Your task to perform on an android device: change the clock display to show seconds Image 0: 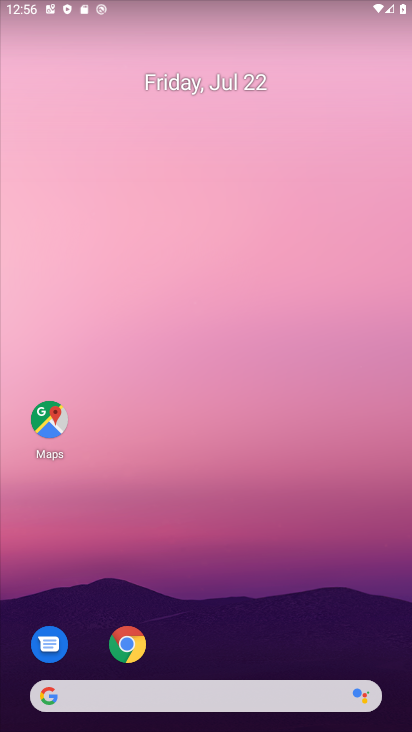
Step 0: press home button
Your task to perform on an android device: change the clock display to show seconds Image 1: 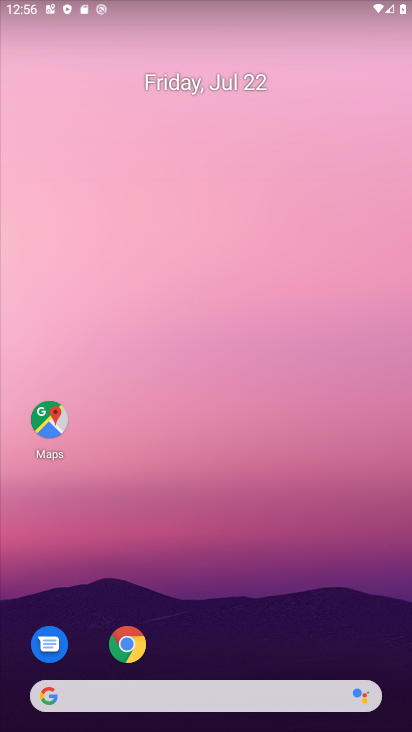
Step 1: drag from (221, 654) to (272, 16)
Your task to perform on an android device: change the clock display to show seconds Image 2: 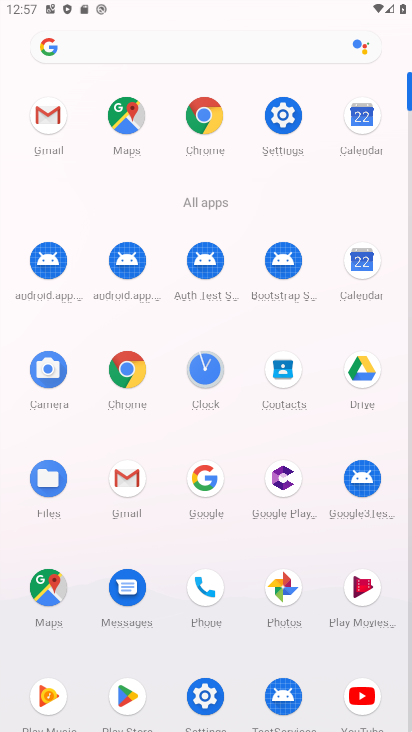
Step 2: click (200, 358)
Your task to perform on an android device: change the clock display to show seconds Image 3: 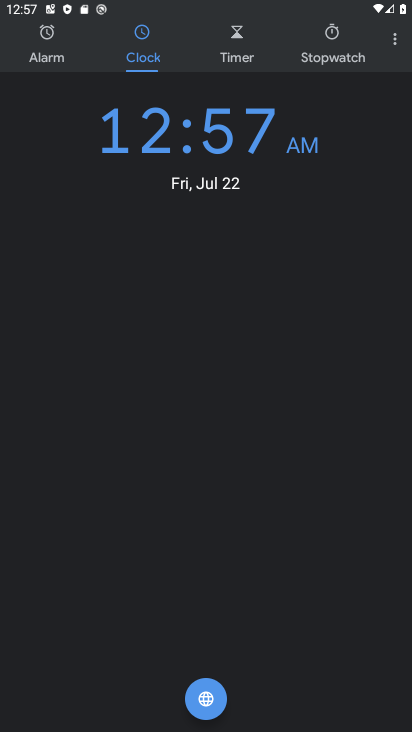
Step 3: click (393, 38)
Your task to perform on an android device: change the clock display to show seconds Image 4: 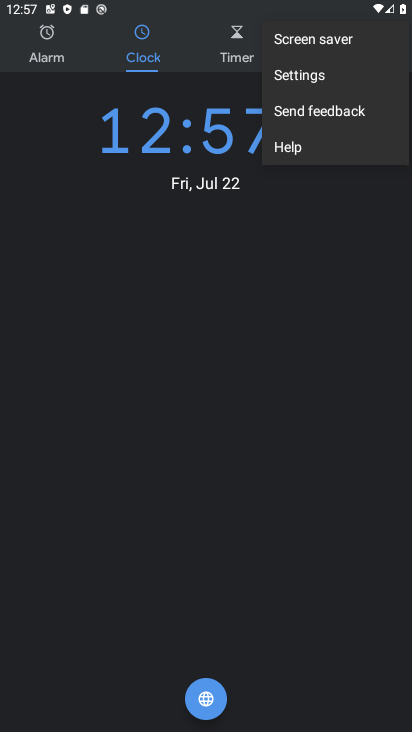
Step 4: click (337, 72)
Your task to perform on an android device: change the clock display to show seconds Image 5: 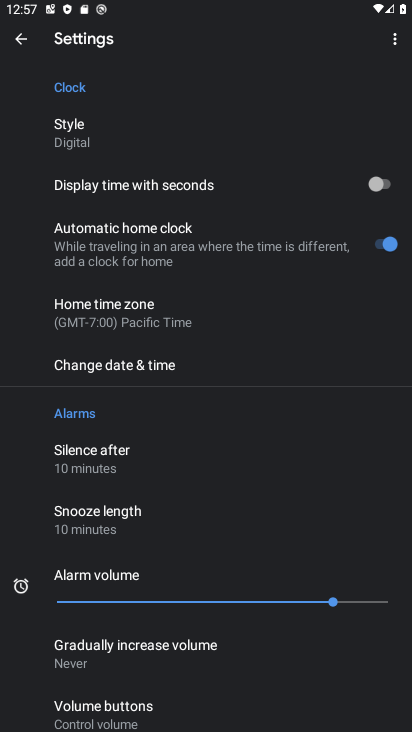
Step 5: click (378, 183)
Your task to perform on an android device: change the clock display to show seconds Image 6: 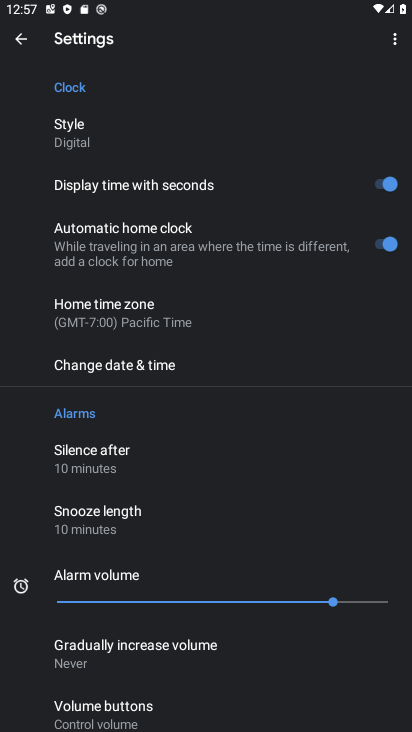
Step 6: task complete